Your task to perform on an android device: change the clock style Image 0: 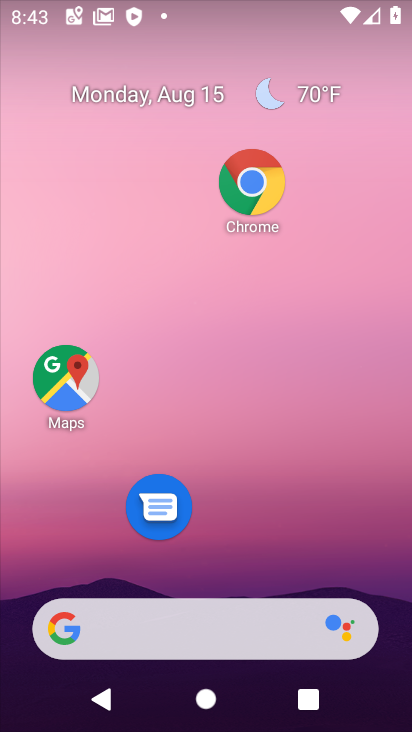
Step 0: drag from (304, 570) to (290, 109)
Your task to perform on an android device: change the clock style Image 1: 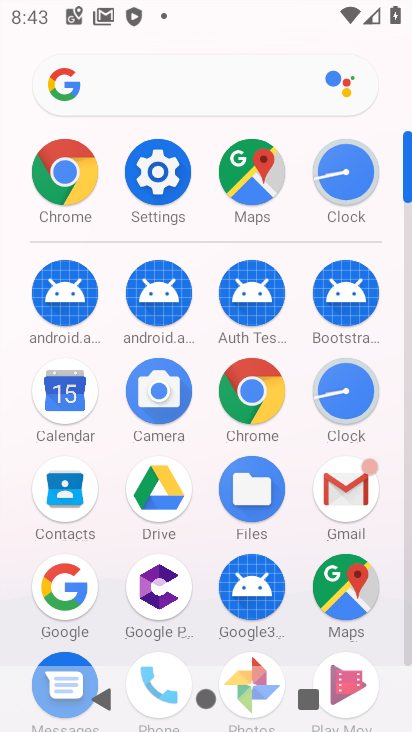
Step 1: click (331, 207)
Your task to perform on an android device: change the clock style Image 2: 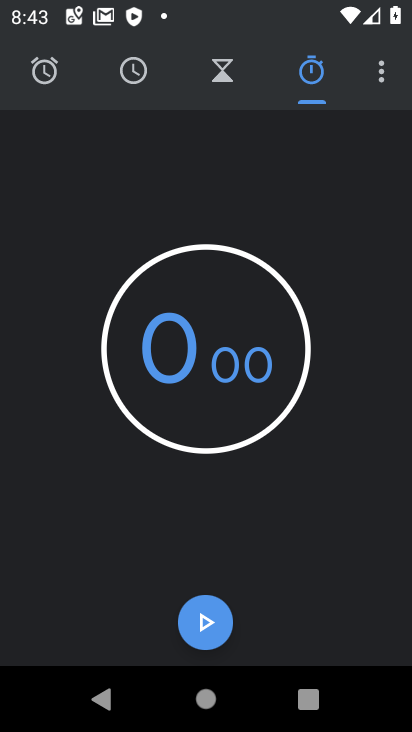
Step 2: click (385, 83)
Your task to perform on an android device: change the clock style Image 3: 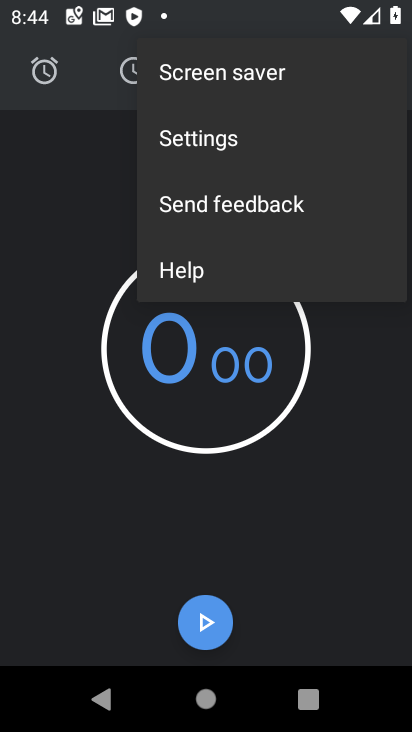
Step 3: click (299, 136)
Your task to perform on an android device: change the clock style Image 4: 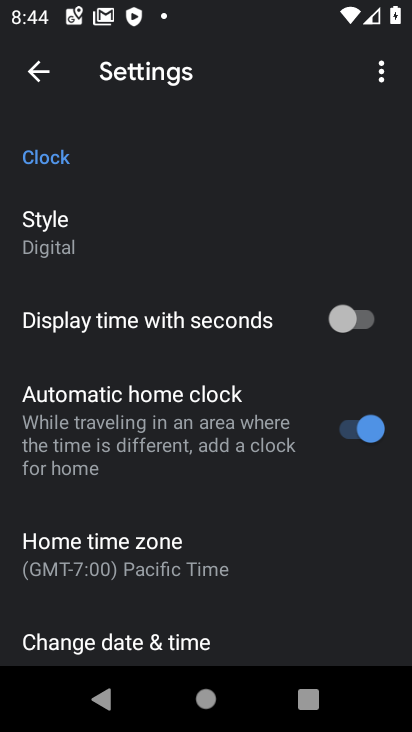
Step 4: click (146, 241)
Your task to perform on an android device: change the clock style Image 5: 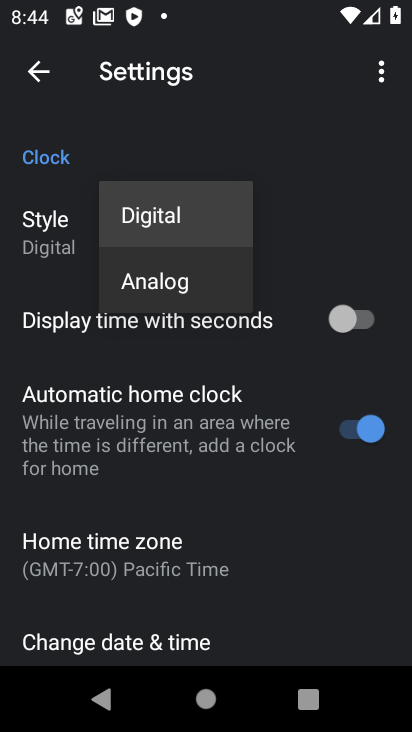
Step 5: click (133, 278)
Your task to perform on an android device: change the clock style Image 6: 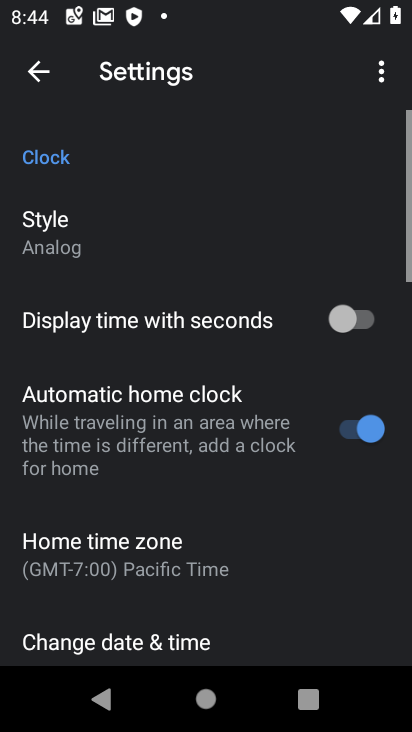
Step 6: task complete